Your task to perform on an android device: Open calendar and show me the first week of next month Image 0: 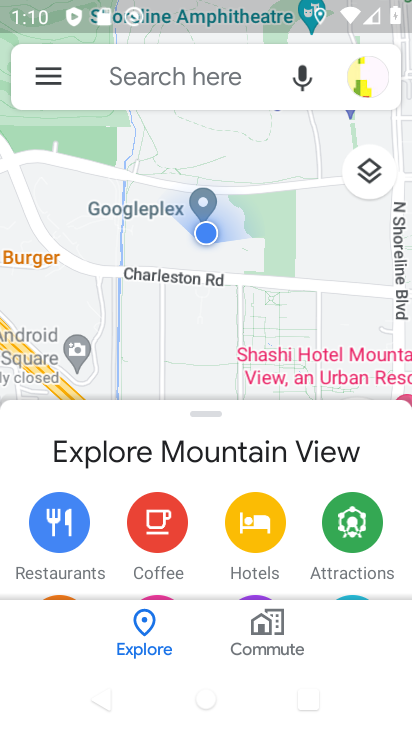
Step 0: press home button
Your task to perform on an android device: Open calendar and show me the first week of next month Image 1: 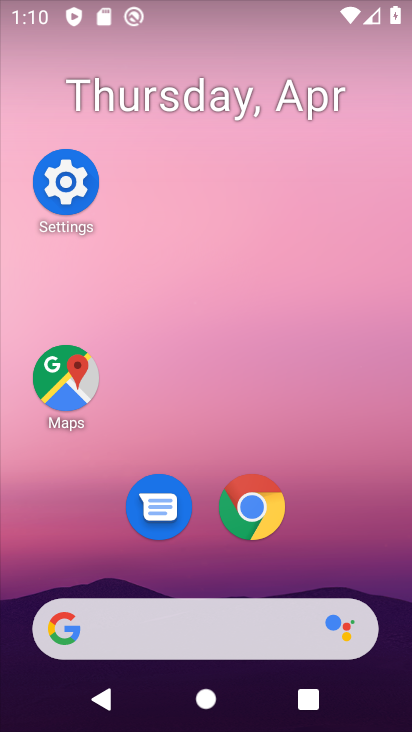
Step 1: drag from (188, 567) to (270, 13)
Your task to perform on an android device: Open calendar and show me the first week of next month Image 2: 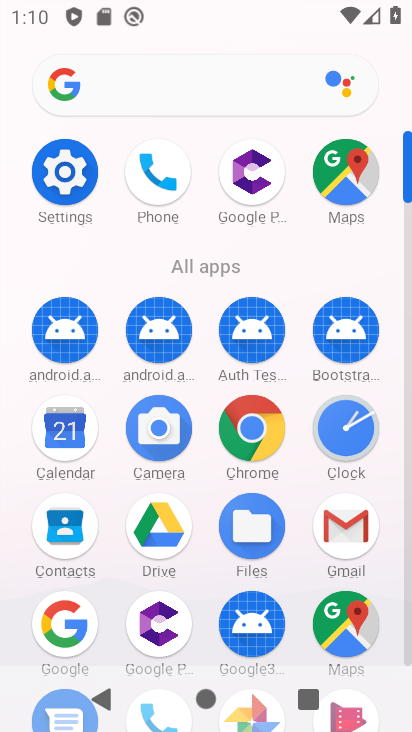
Step 2: drag from (64, 435) to (179, 203)
Your task to perform on an android device: Open calendar and show me the first week of next month Image 3: 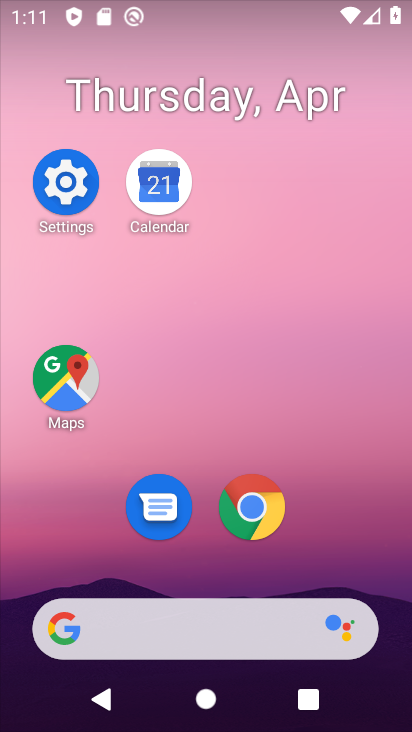
Step 3: click (157, 176)
Your task to perform on an android device: Open calendar and show me the first week of next month Image 4: 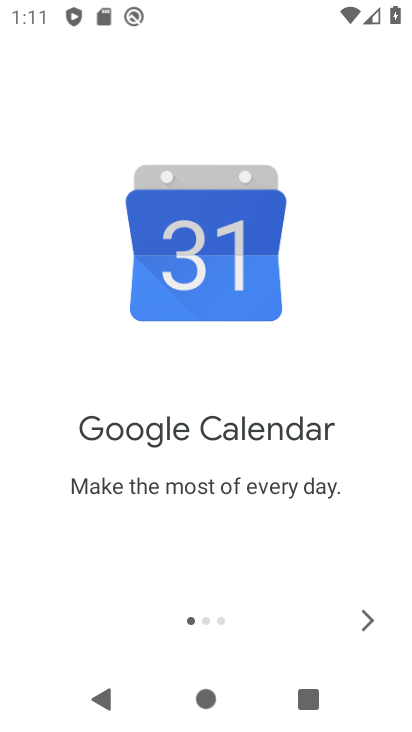
Step 4: click (373, 628)
Your task to perform on an android device: Open calendar and show me the first week of next month Image 5: 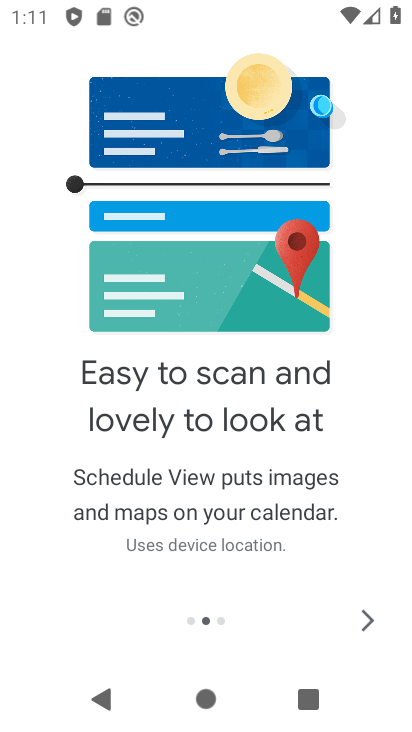
Step 5: click (373, 628)
Your task to perform on an android device: Open calendar and show me the first week of next month Image 6: 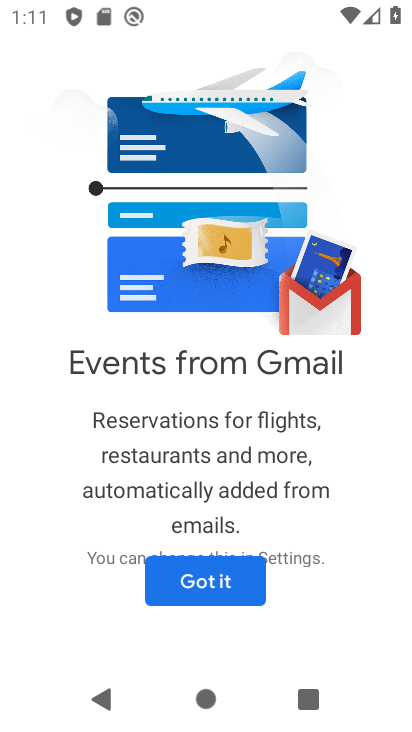
Step 6: click (228, 598)
Your task to perform on an android device: Open calendar and show me the first week of next month Image 7: 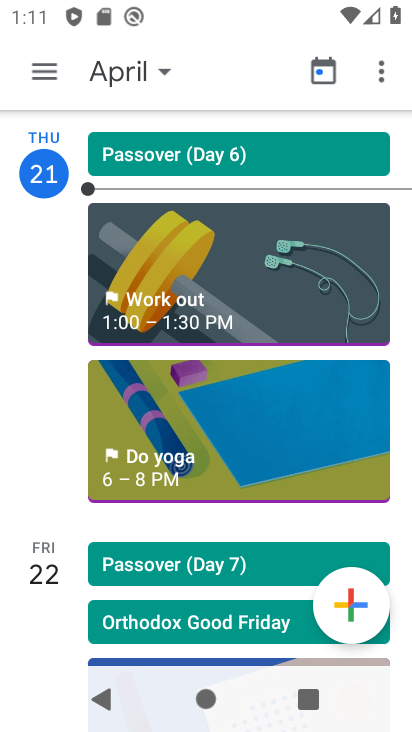
Step 7: click (145, 76)
Your task to perform on an android device: Open calendar and show me the first week of next month Image 8: 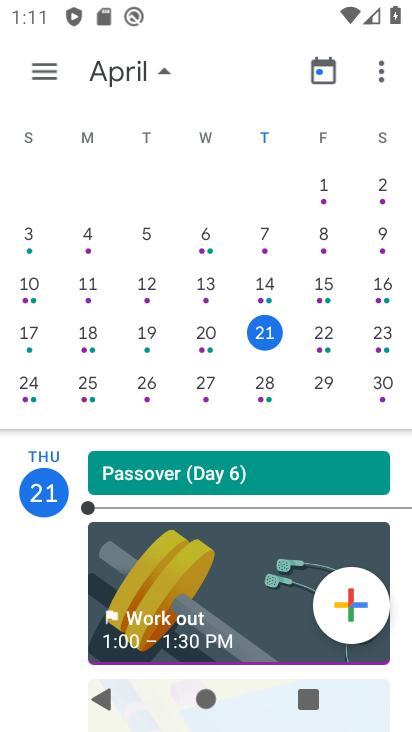
Step 8: drag from (371, 262) to (34, 23)
Your task to perform on an android device: Open calendar and show me the first week of next month Image 9: 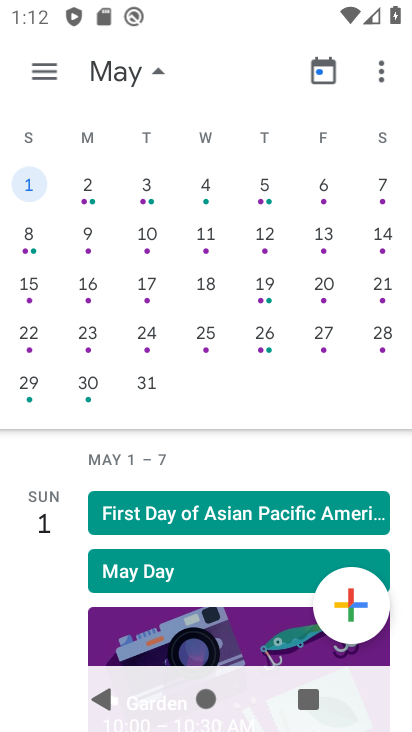
Step 9: click (38, 67)
Your task to perform on an android device: Open calendar and show me the first week of next month Image 10: 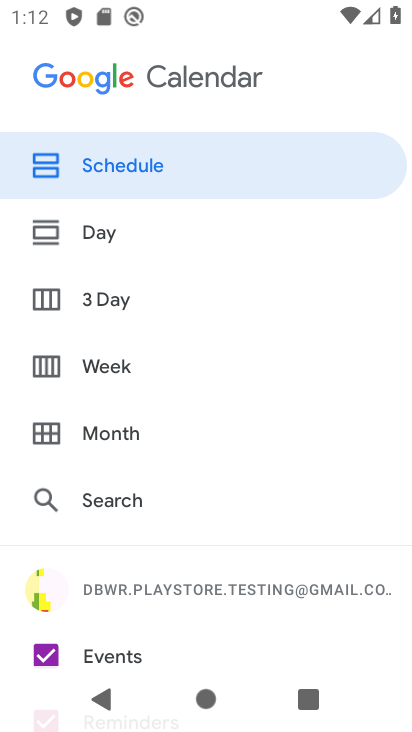
Step 10: click (145, 360)
Your task to perform on an android device: Open calendar and show me the first week of next month Image 11: 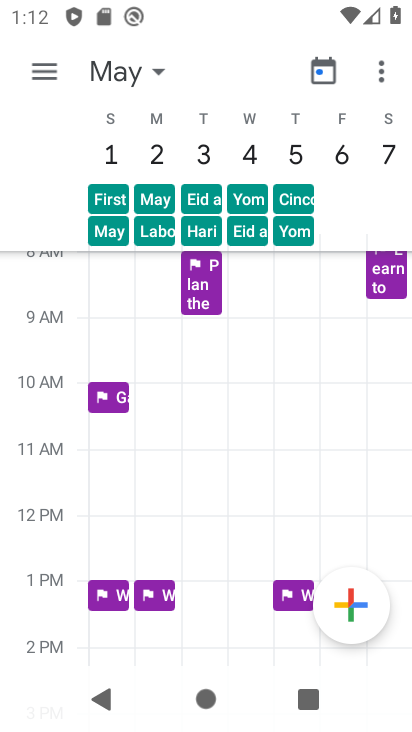
Step 11: task complete